Your task to perform on an android device: Open calendar and show me the fourth week of next month Image 0: 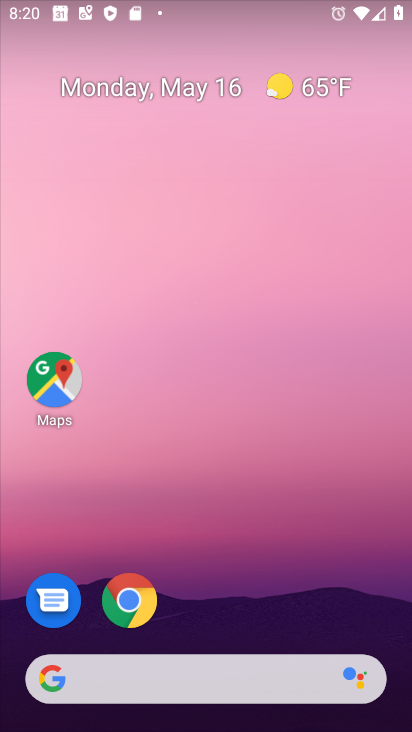
Step 0: drag from (212, 619) to (216, 74)
Your task to perform on an android device: Open calendar and show me the fourth week of next month Image 1: 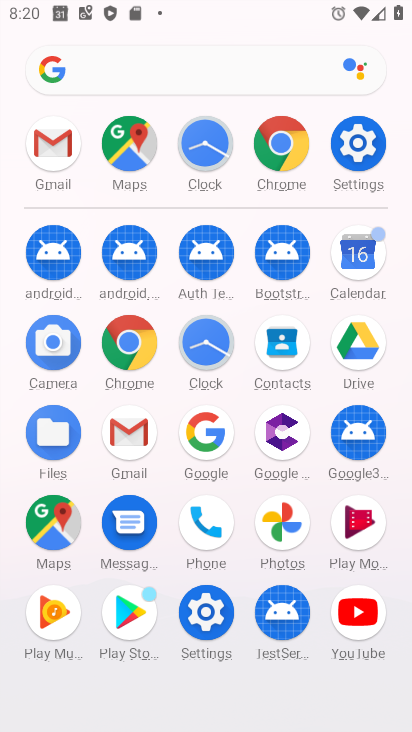
Step 1: drag from (235, 580) to (221, 228)
Your task to perform on an android device: Open calendar and show me the fourth week of next month Image 2: 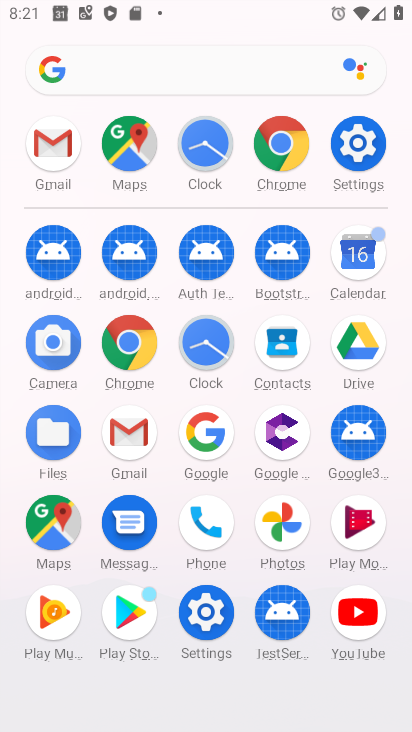
Step 2: click (358, 263)
Your task to perform on an android device: Open calendar and show me the fourth week of next month Image 3: 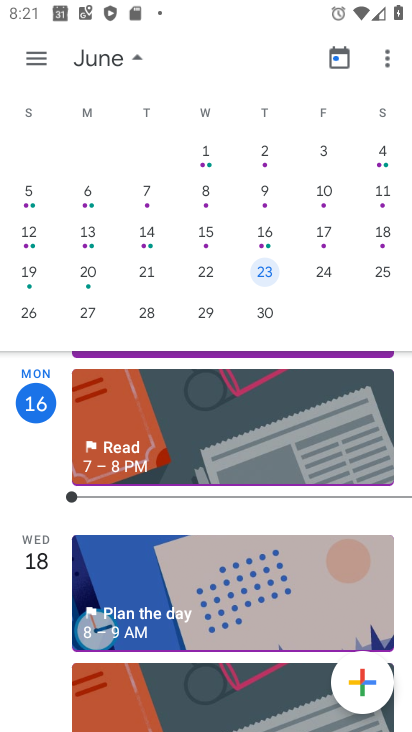
Step 3: click (209, 262)
Your task to perform on an android device: Open calendar and show me the fourth week of next month Image 4: 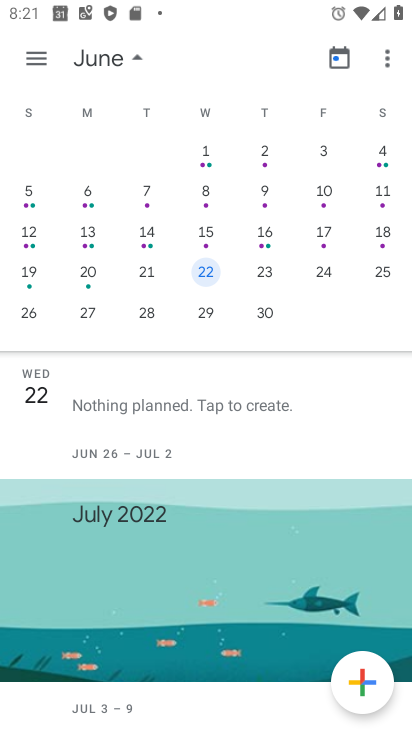
Step 4: task complete